Your task to perform on an android device: Open Wikipedia Image 0: 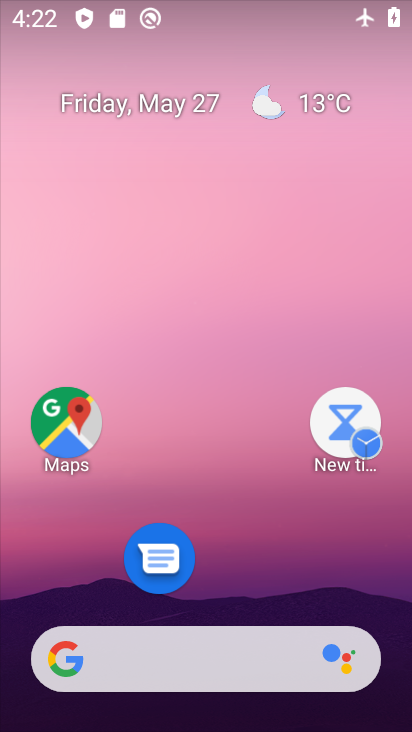
Step 0: drag from (226, 570) to (172, 238)
Your task to perform on an android device: Open Wikipedia Image 1: 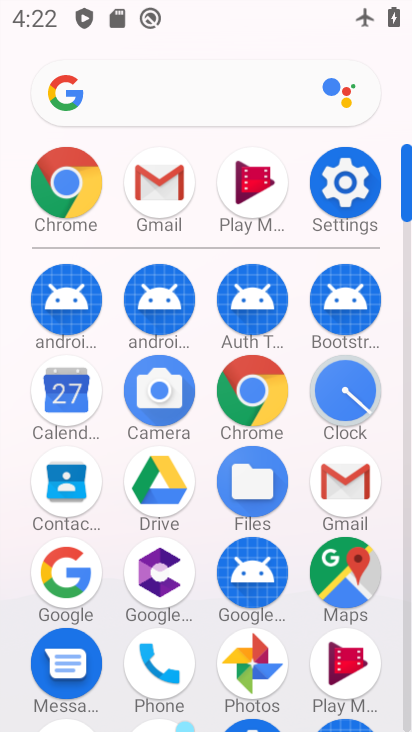
Step 1: click (81, 198)
Your task to perform on an android device: Open Wikipedia Image 2: 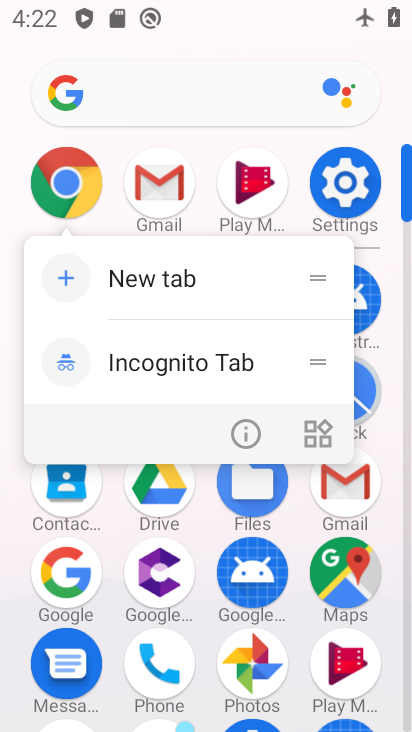
Step 2: click (152, 288)
Your task to perform on an android device: Open Wikipedia Image 3: 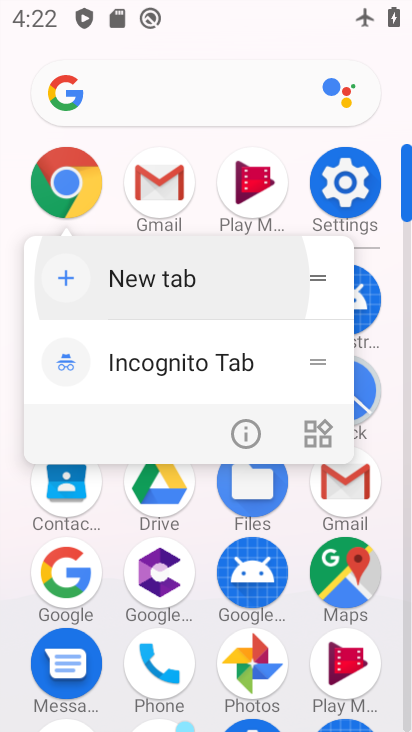
Step 3: click (156, 279)
Your task to perform on an android device: Open Wikipedia Image 4: 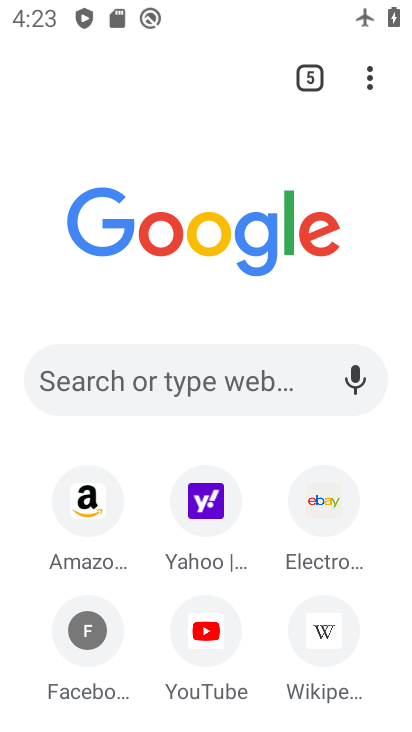
Step 4: click (322, 632)
Your task to perform on an android device: Open Wikipedia Image 5: 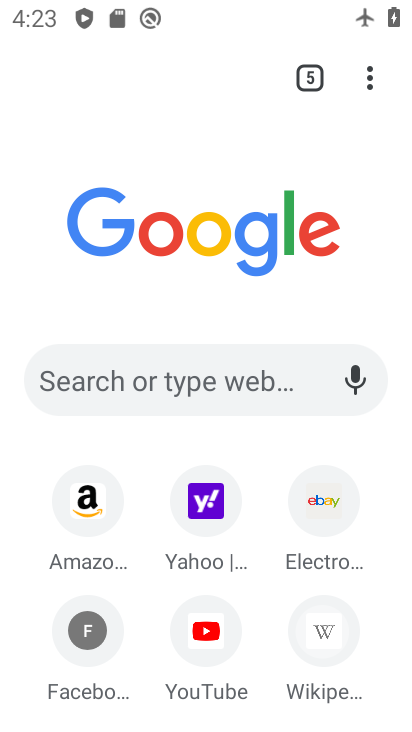
Step 5: click (323, 631)
Your task to perform on an android device: Open Wikipedia Image 6: 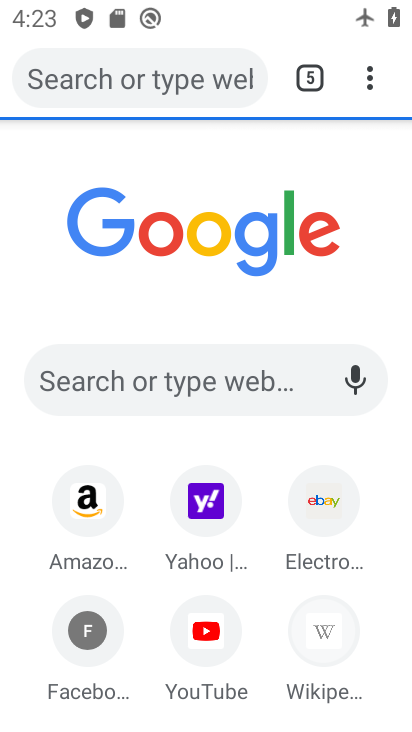
Step 6: click (323, 631)
Your task to perform on an android device: Open Wikipedia Image 7: 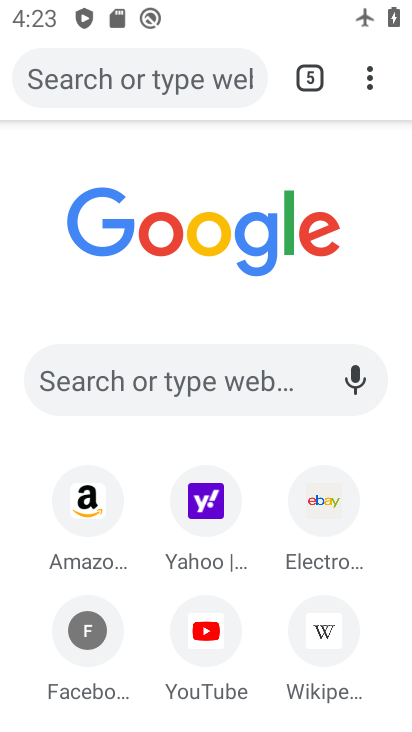
Step 7: click (323, 631)
Your task to perform on an android device: Open Wikipedia Image 8: 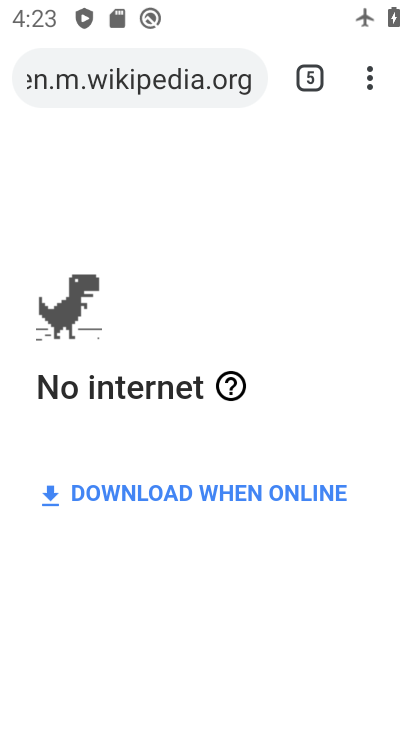
Step 8: task complete